Your task to perform on an android device: Search for "razer blade" on costco, select the first entry, add it to the cart, then select checkout. Image 0: 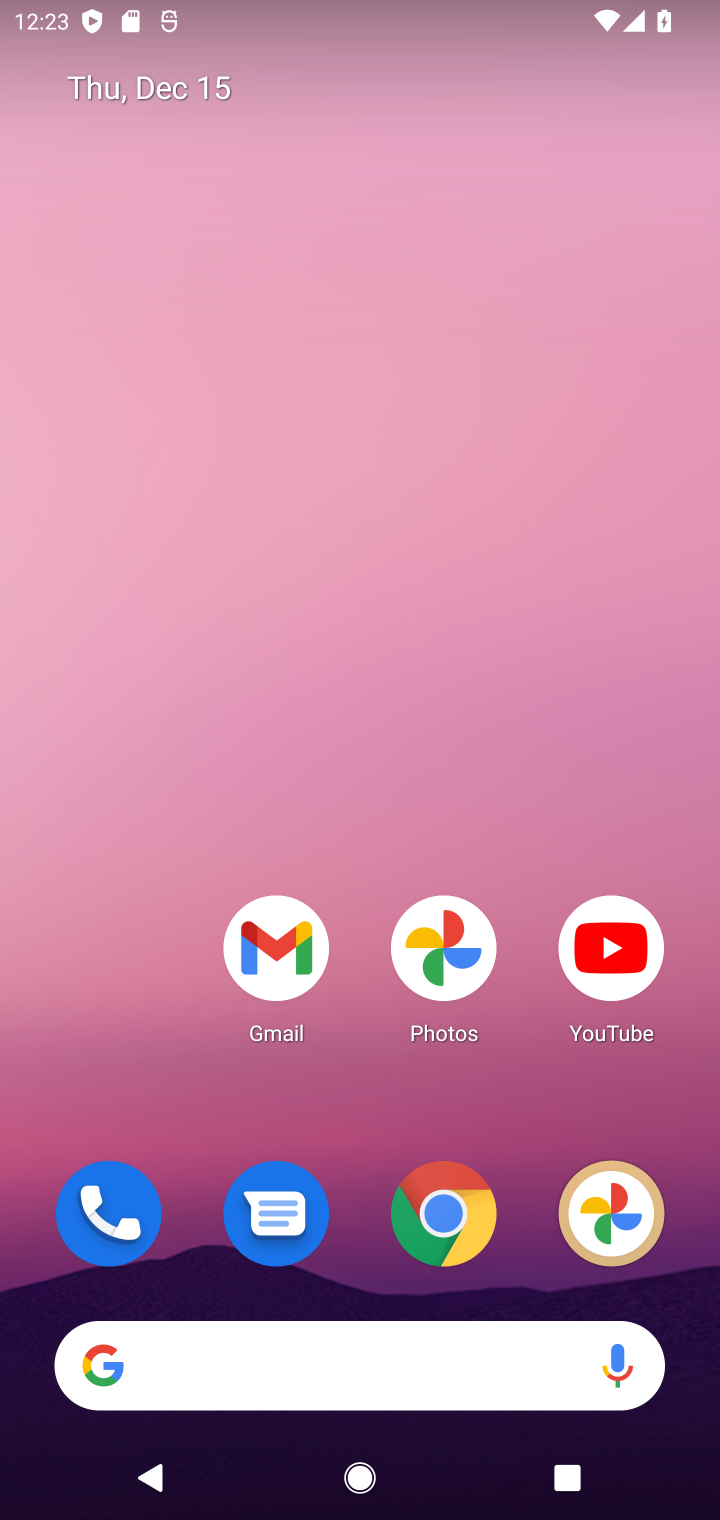
Step 0: click (482, 1235)
Your task to perform on an android device: Search for "razer blade" on costco, select the first entry, add it to the cart, then select checkout. Image 1: 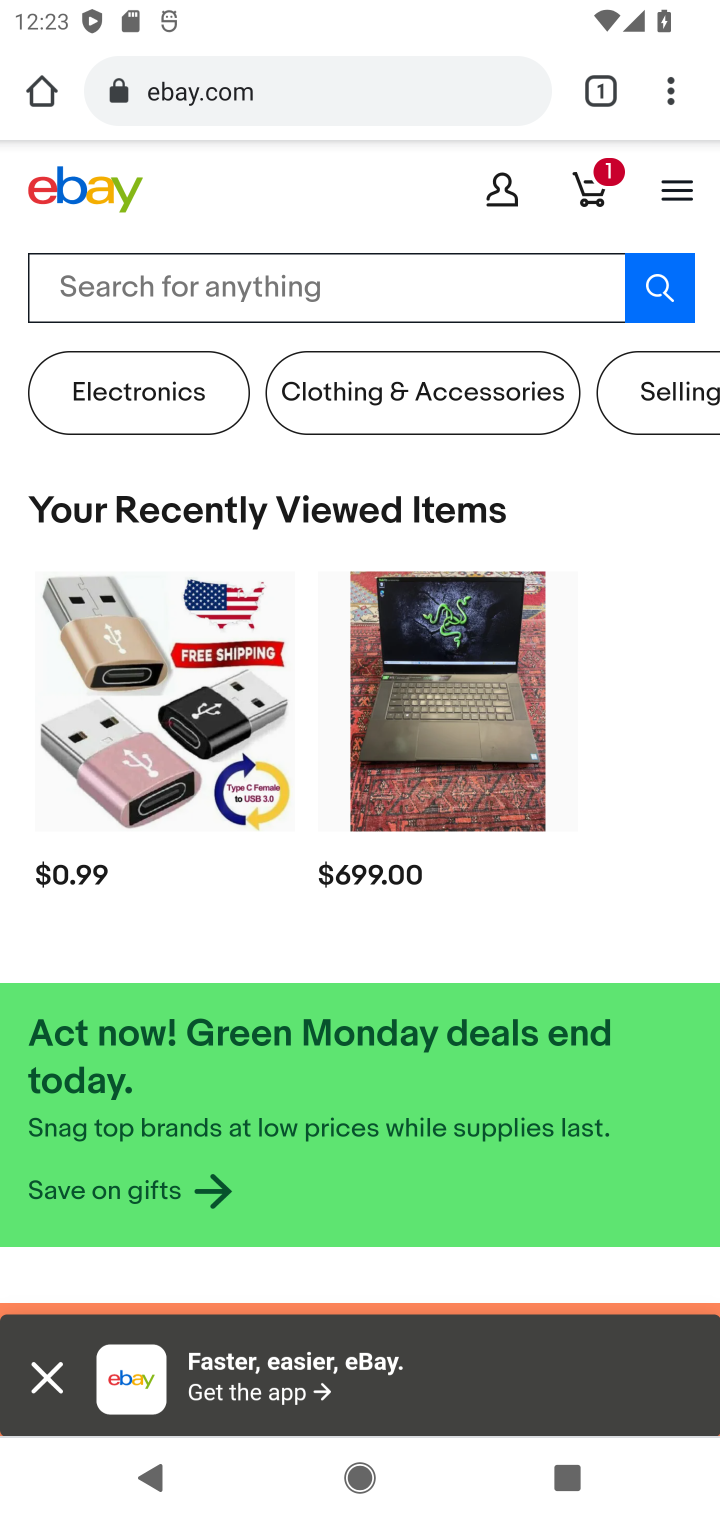
Step 1: click (308, 108)
Your task to perform on an android device: Search for "razer blade" on costco, select the first entry, add it to the cart, then select checkout. Image 2: 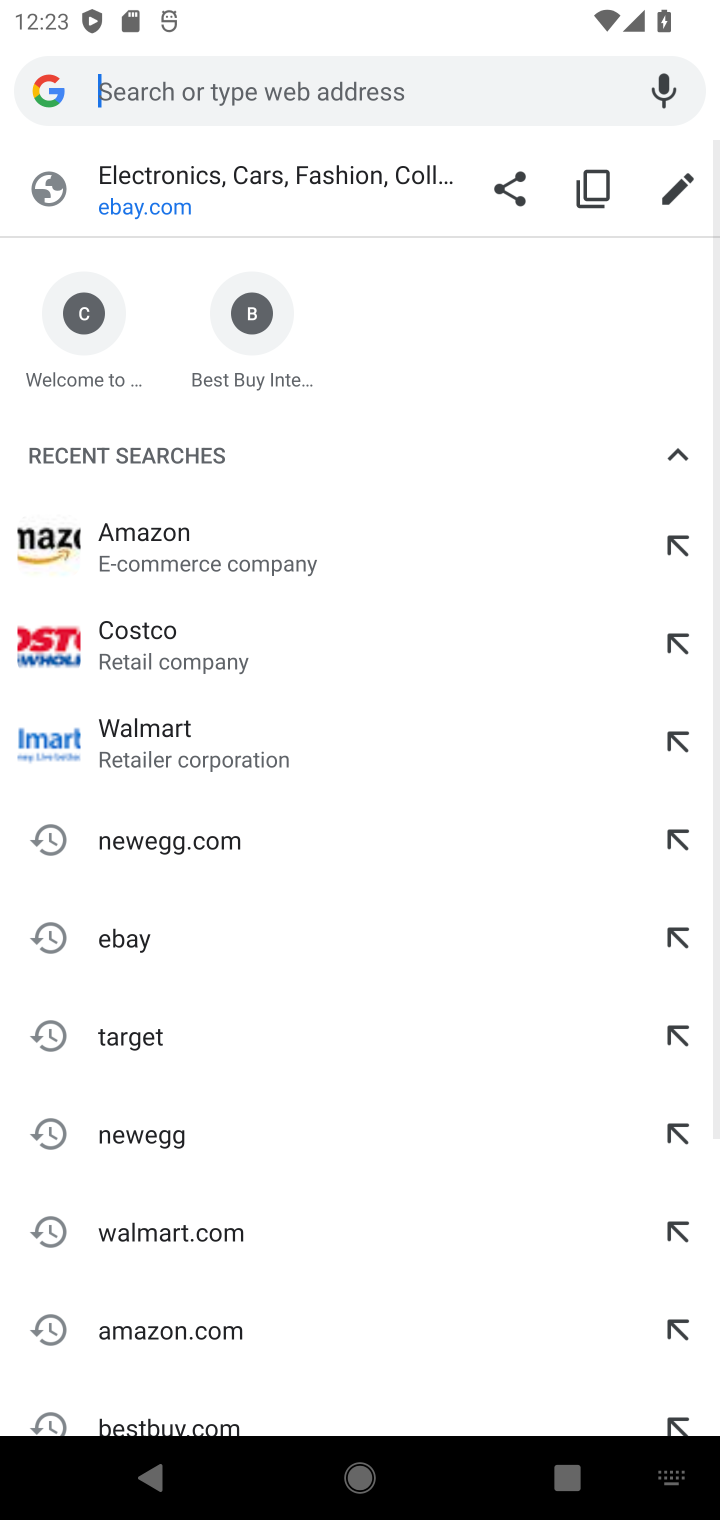
Step 2: click (331, 678)
Your task to perform on an android device: Search for "razer blade" on costco, select the first entry, add it to the cart, then select checkout. Image 3: 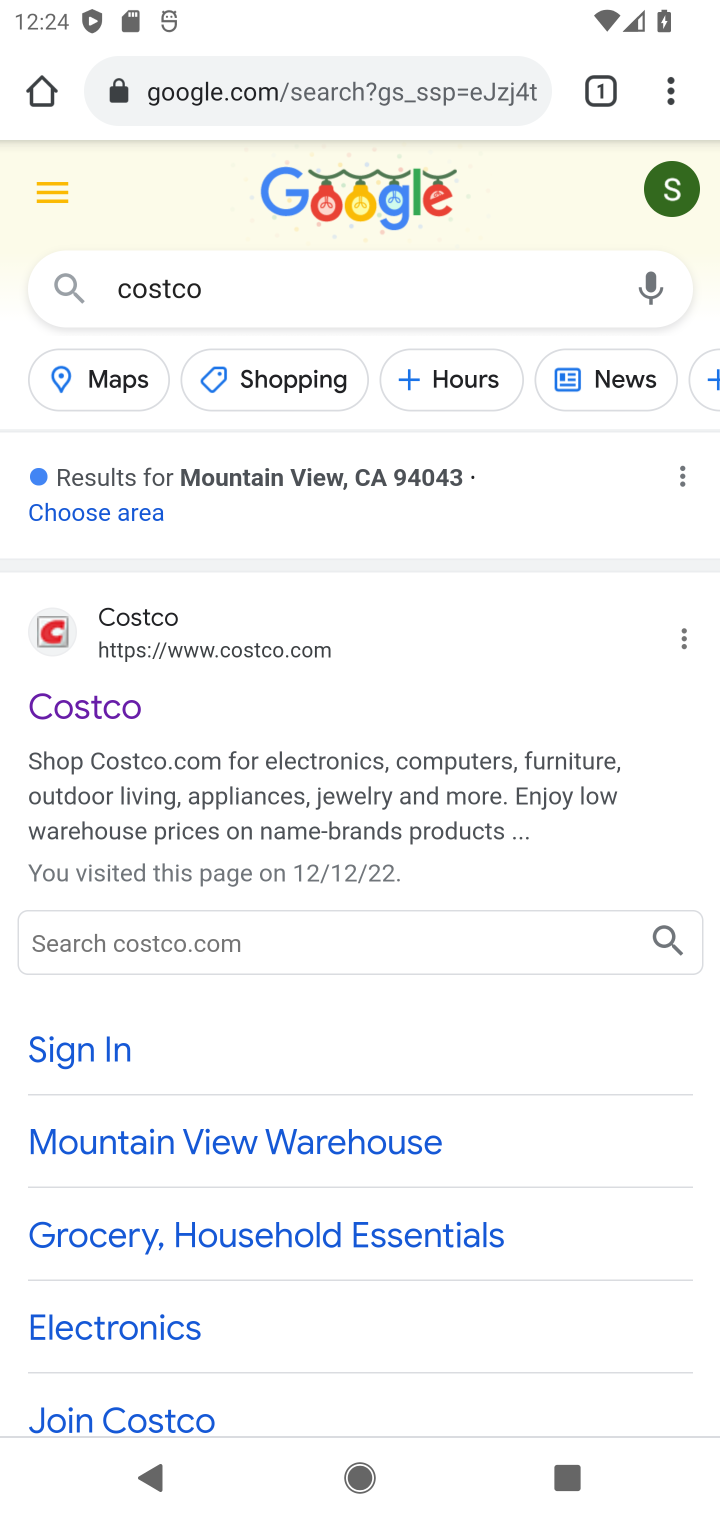
Step 3: click (108, 680)
Your task to perform on an android device: Search for "razer blade" on costco, select the first entry, add it to the cart, then select checkout. Image 4: 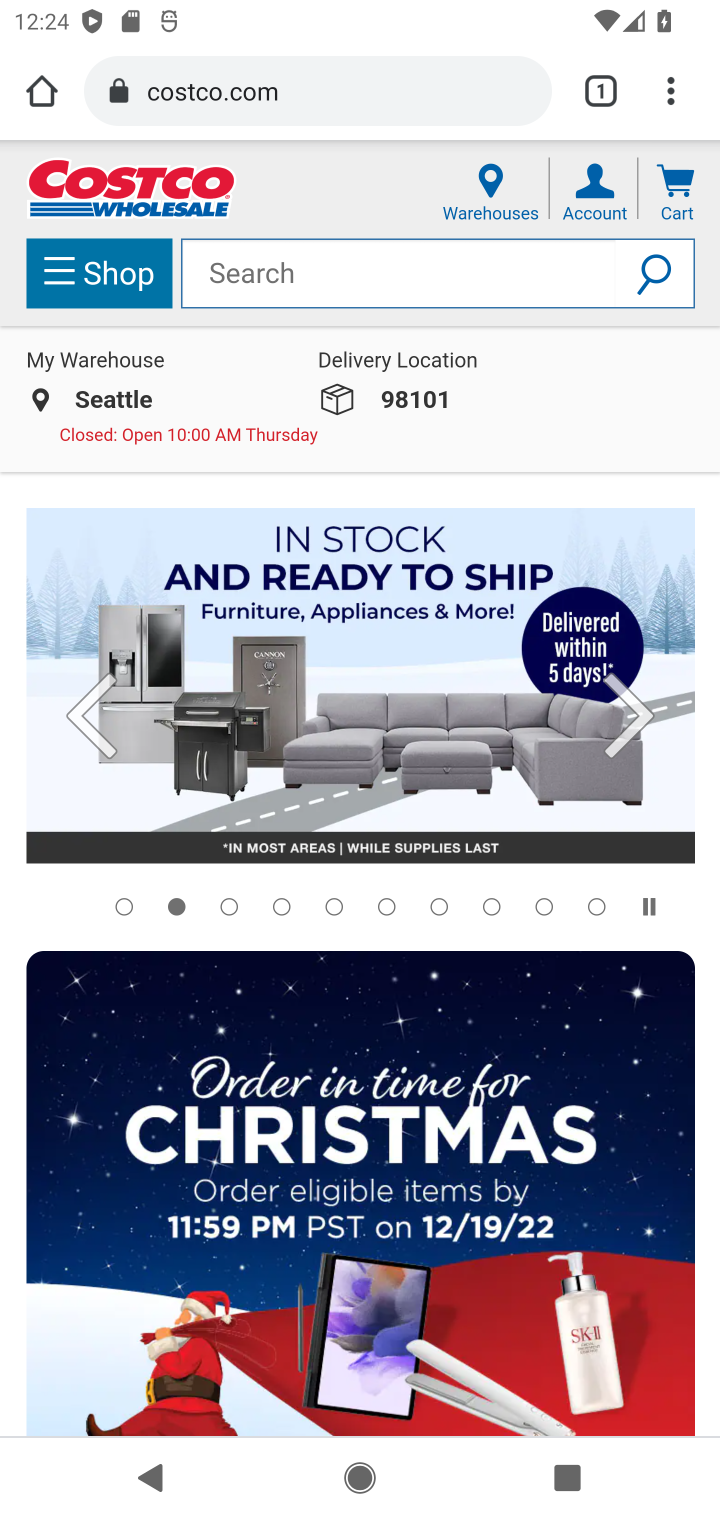
Step 4: click (426, 256)
Your task to perform on an android device: Search for "razer blade" on costco, select the first entry, add it to the cart, then select checkout. Image 5: 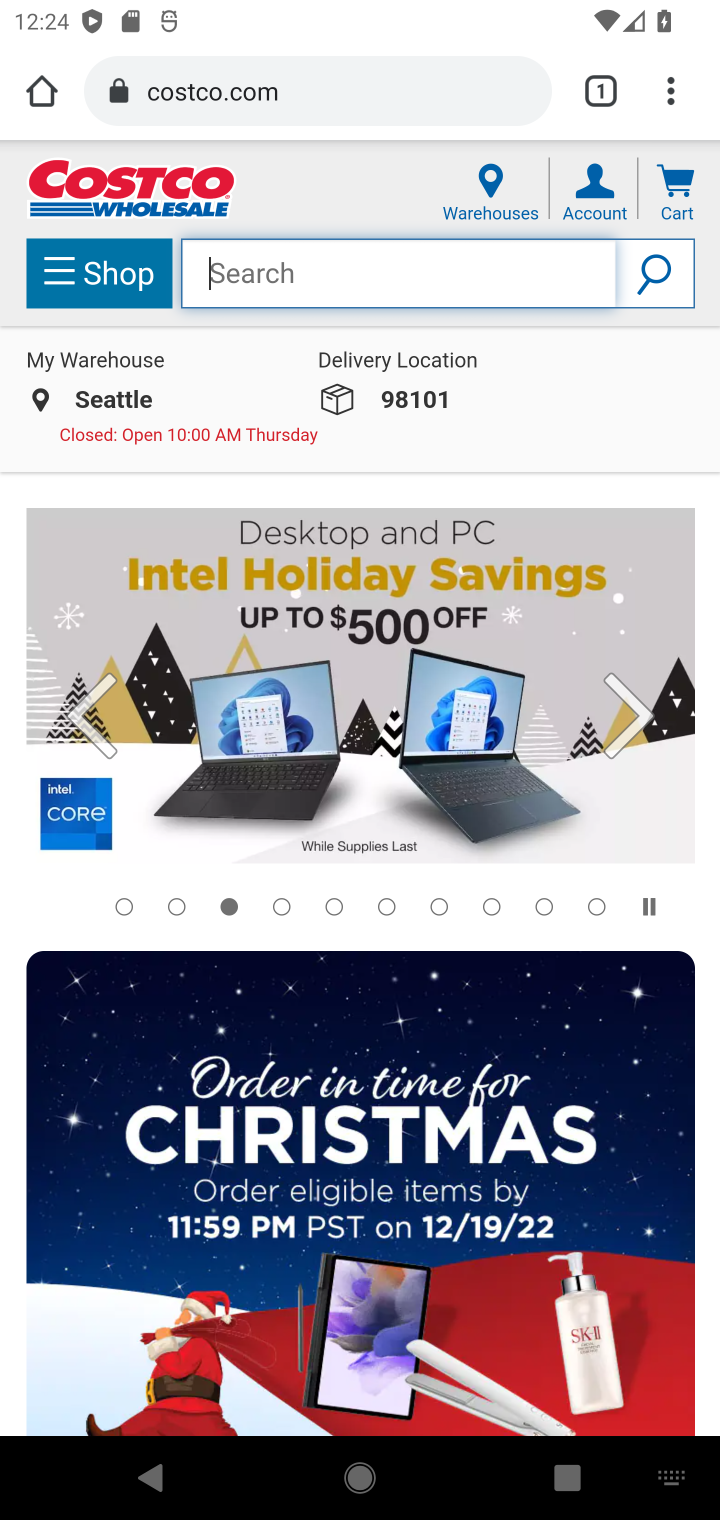
Step 5: type "razer blade"
Your task to perform on an android device: Search for "razer blade" on costco, select the first entry, add it to the cart, then select checkout. Image 6: 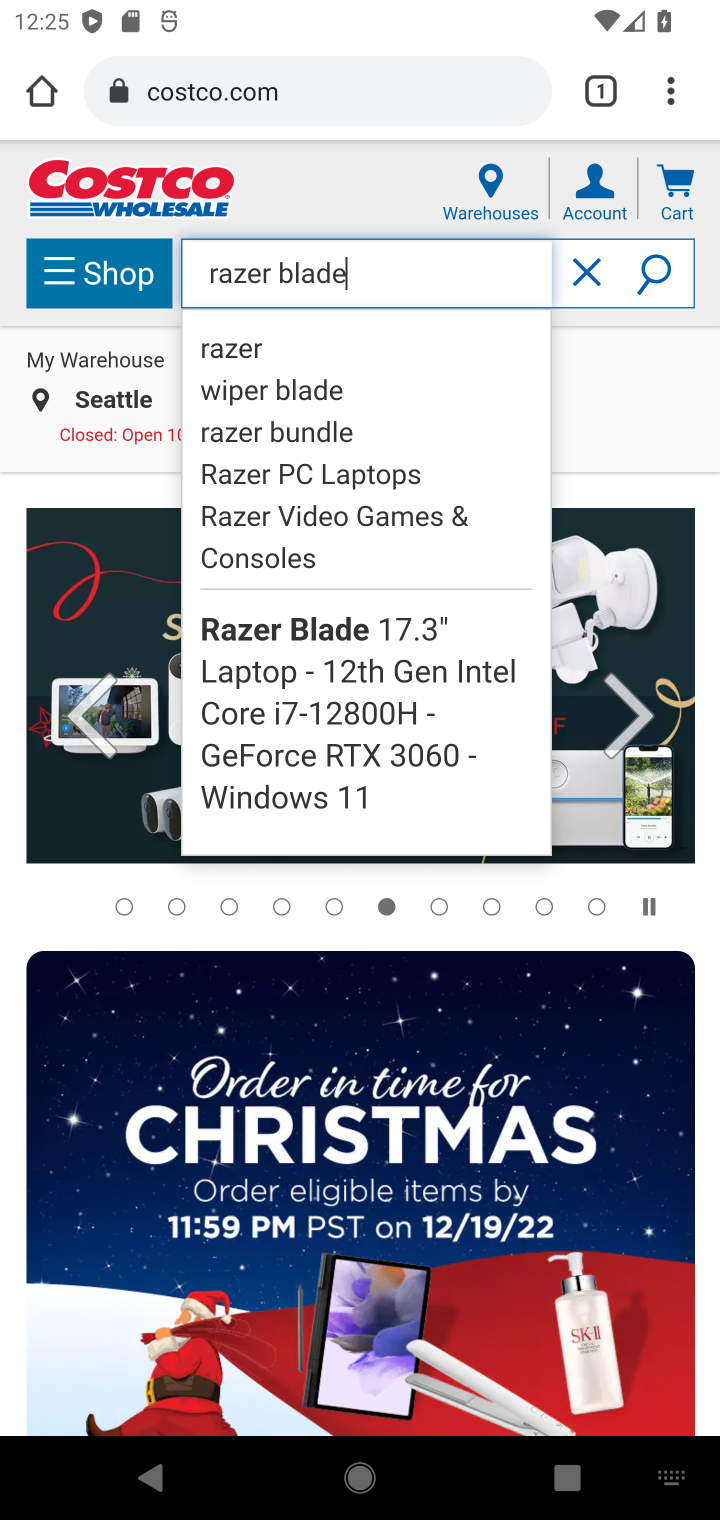
Step 6: click (665, 294)
Your task to perform on an android device: Search for "razer blade" on costco, select the first entry, add it to the cart, then select checkout. Image 7: 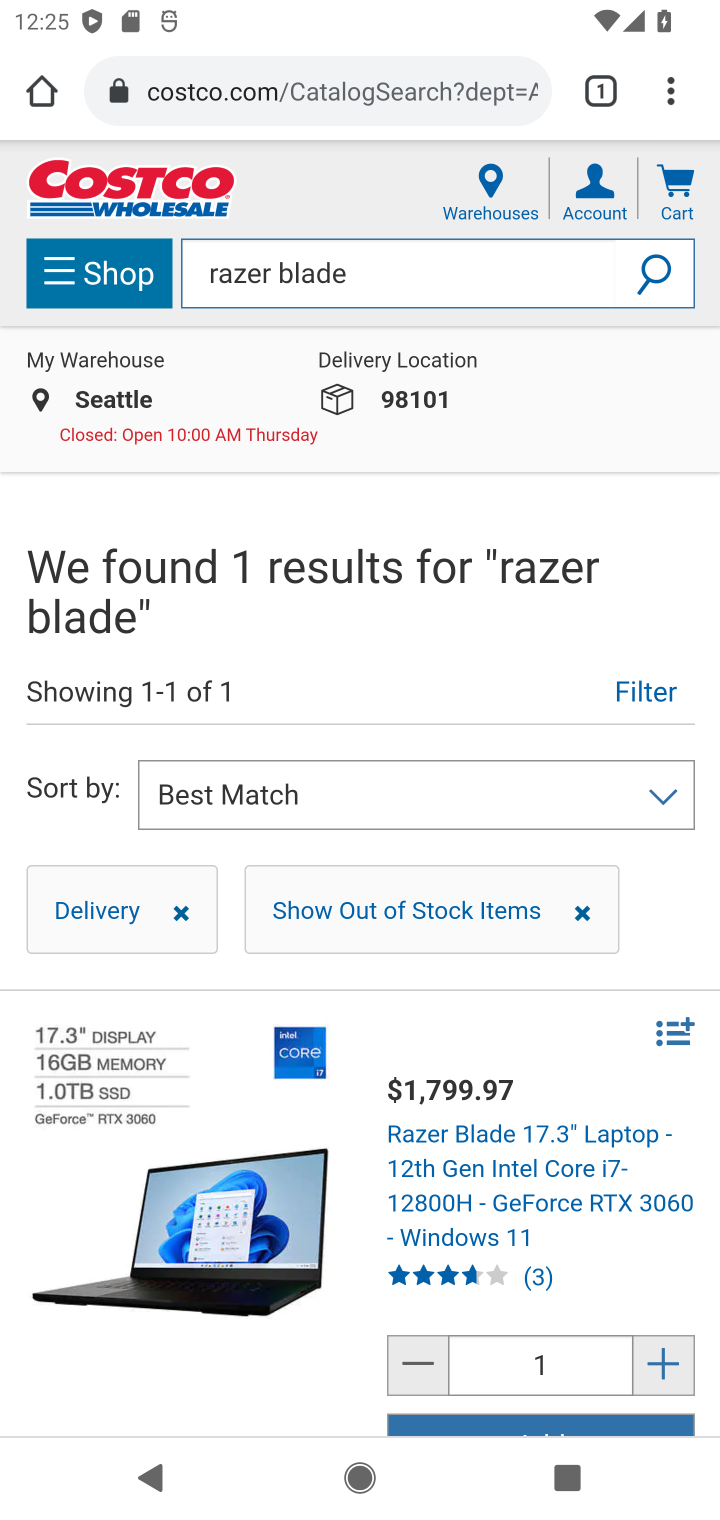
Step 7: click (568, 1430)
Your task to perform on an android device: Search for "razer blade" on costco, select the first entry, add it to the cart, then select checkout. Image 8: 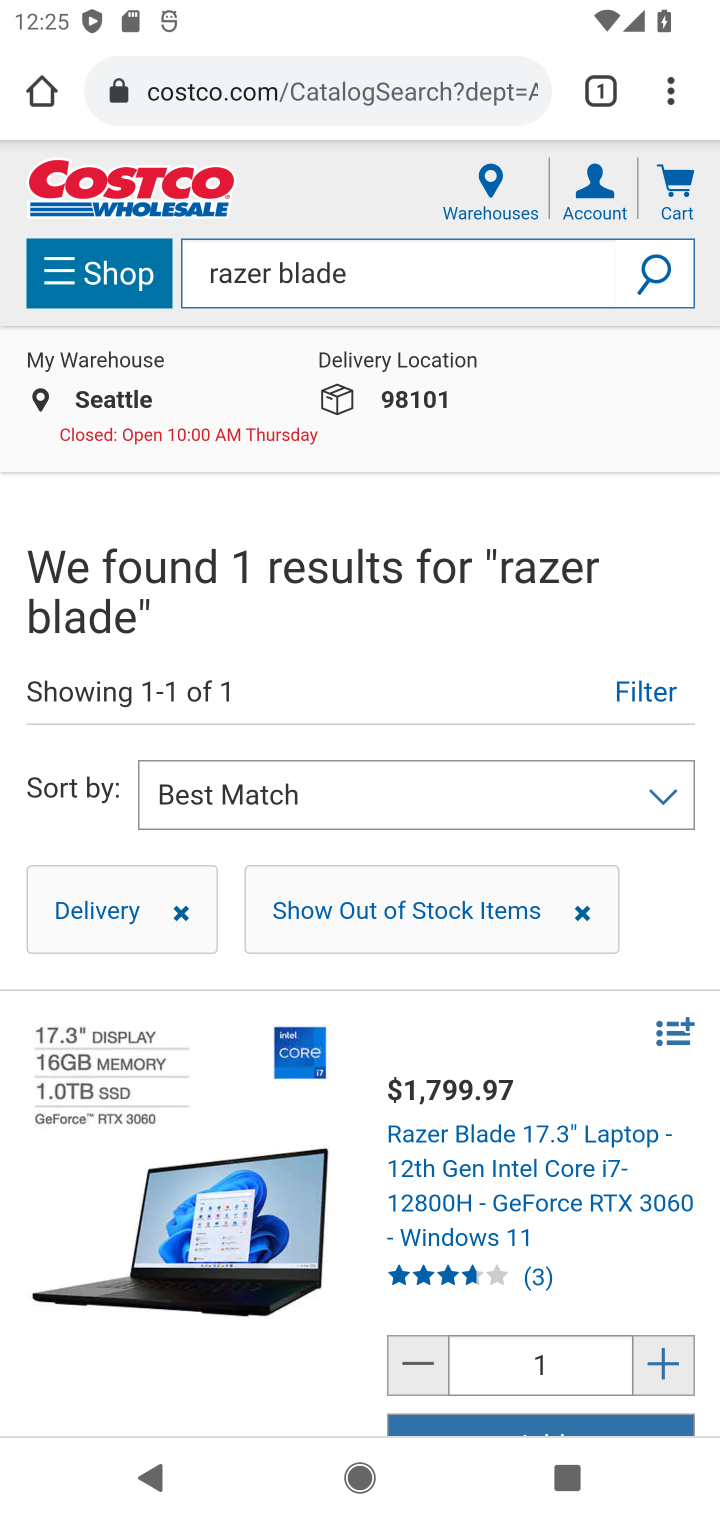
Step 8: task complete